Your task to perform on an android device: Open the map Image 0: 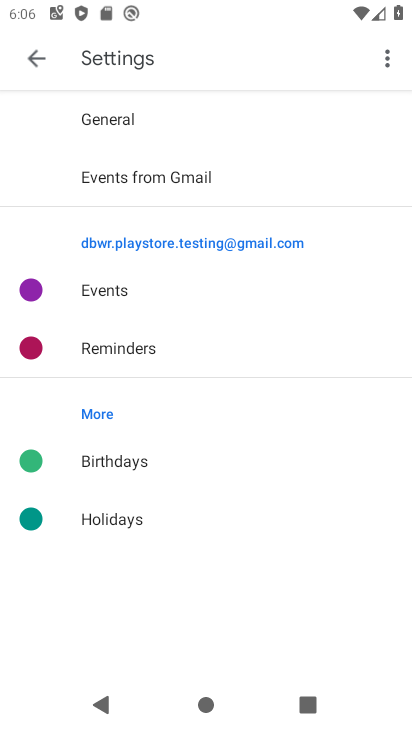
Step 0: press home button
Your task to perform on an android device: Open the map Image 1: 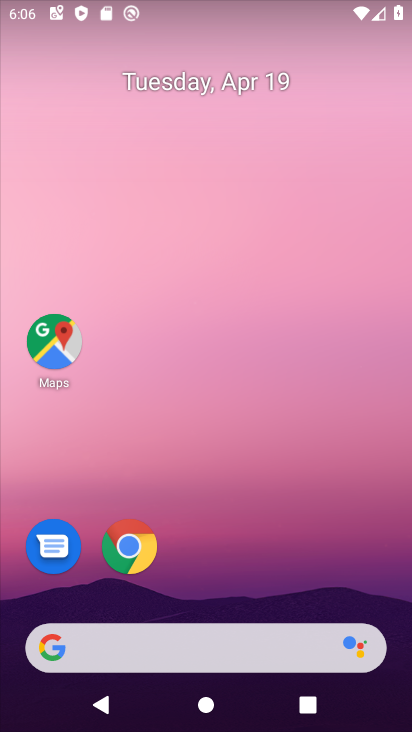
Step 1: drag from (285, 604) to (273, 102)
Your task to perform on an android device: Open the map Image 2: 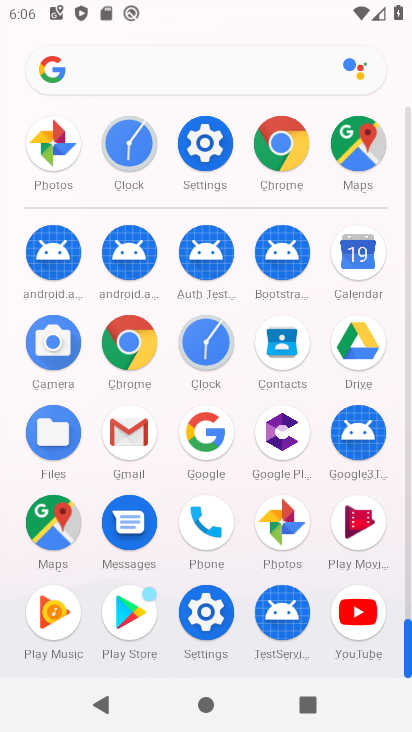
Step 2: click (48, 520)
Your task to perform on an android device: Open the map Image 3: 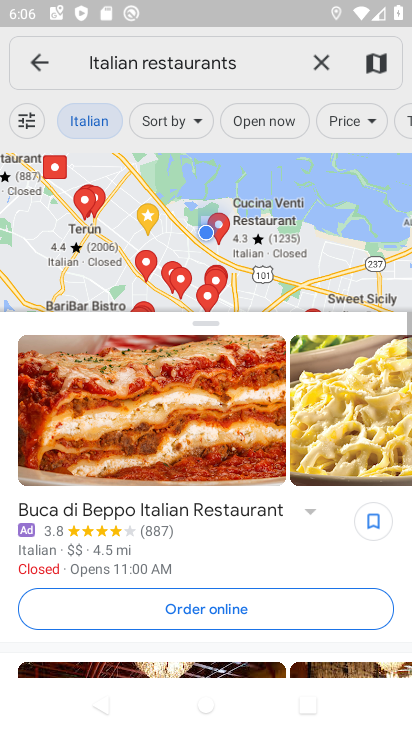
Step 3: task complete